Your task to perform on an android device: Open the map Image 0: 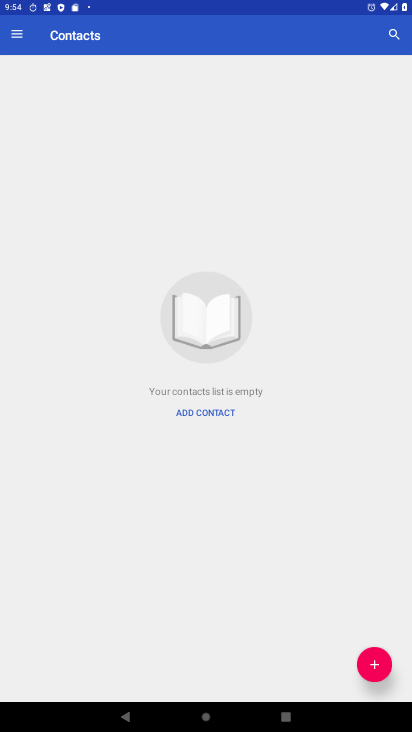
Step 0: press home button
Your task to perform on an android device: Open the map Image 1: 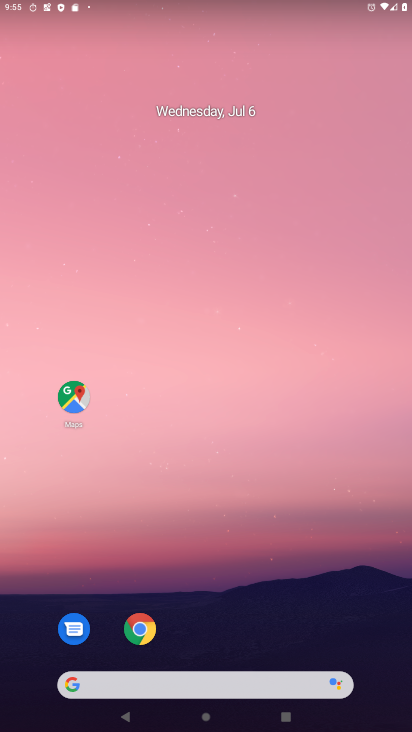
Step 1: click (61, 387)
Your task to perform on an android device: Open the map Image 2: 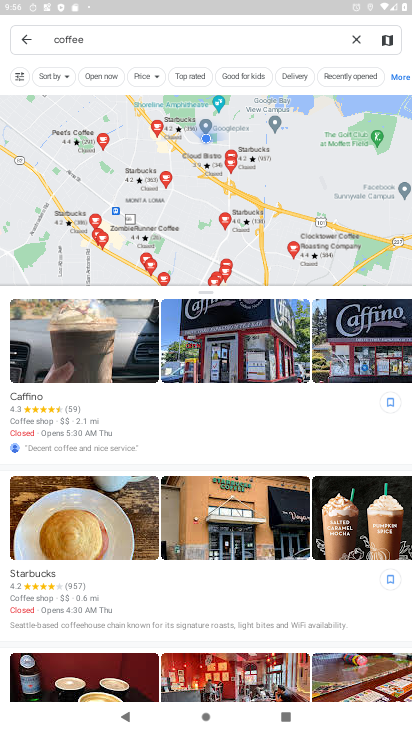
Step 2: click (31, 41)
Your task to perform on an android device: Open the map Image 3: 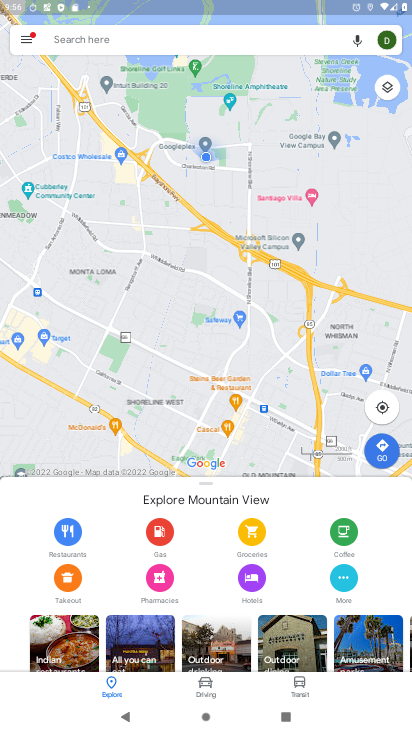
Step 3: task complete